Your task to perform on an android device: Open calendar and show me the third week of next month Image 0: 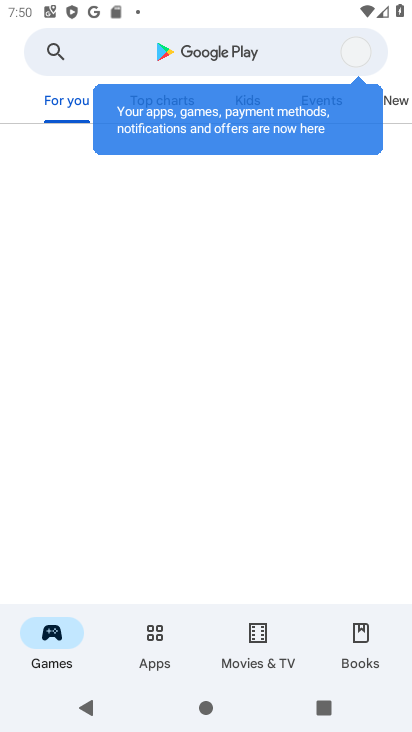
Step 0: press home button
Your task to perform on an android device: Open calendar and show me the third week of next month Image 1: 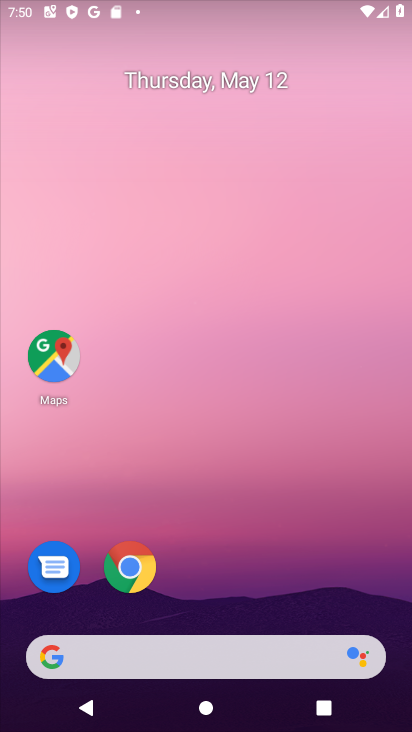
Step 1: drag from (221, 625) to (269, 166)
Your task to perform on an android device: Open calendar and show me the third week of next month Image 2: 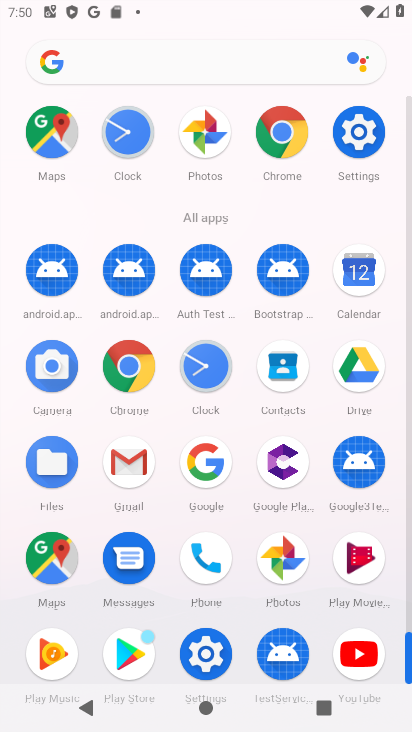
Step 2: click (362, 281)
Your task to perform on an android device: Open calendar and show me the third week of next month Image 3: 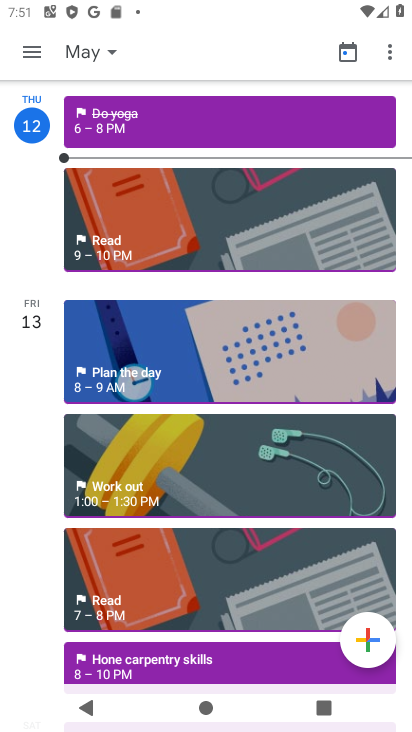
Step 3: click (100, 46)
Your task to perform on an android device: Open calendar and show me the third week of next month Image 4: 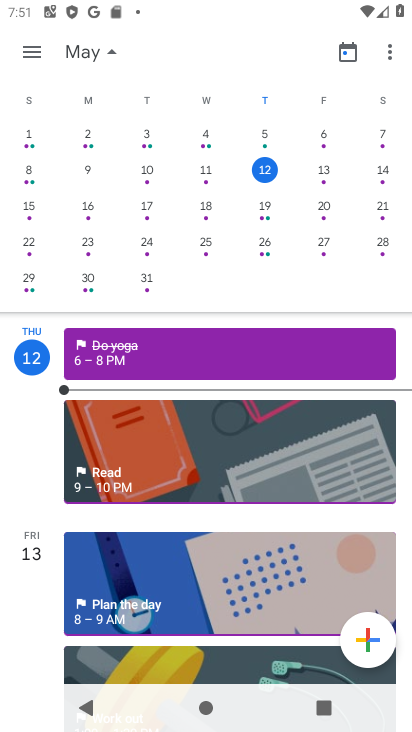
Step 4: drag from (365, 219) to (4, 203)
Your task to perform on an android device: Open calendar and show me the third week of next month Image 5: 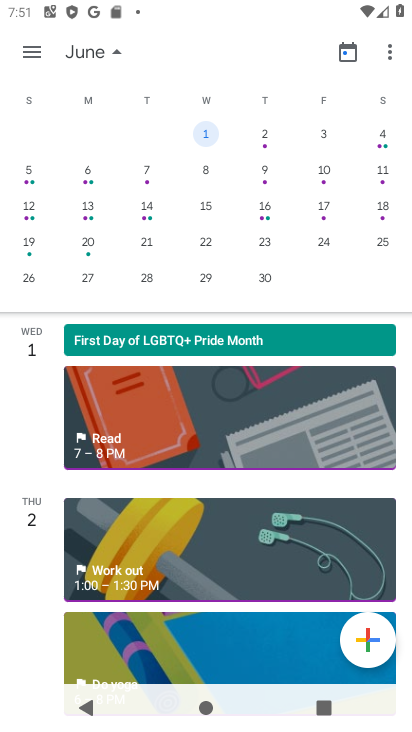
Step 5: click (34, 246)
Your task to perform on an android device: Open calendar and show me the third week of next month Image 6: 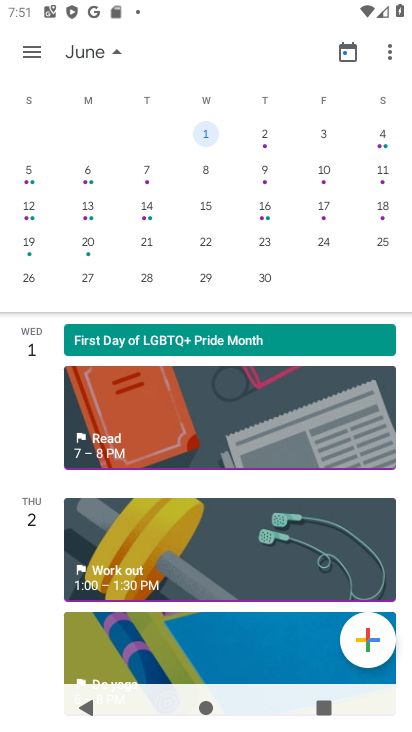
Step 6: click (30, 253)
Your task to perform on an android device: Open calendar and show me the third week of next month Image 7: 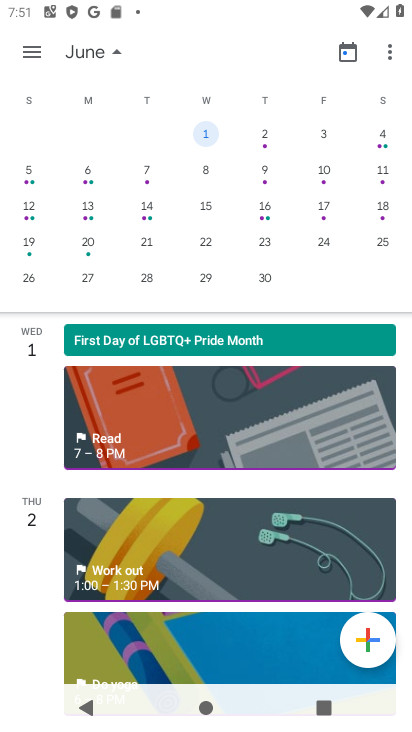
Step 7: click (36, 249)
Your task to perform on an android device: Open calendar and show me the third week of next month Image 8: 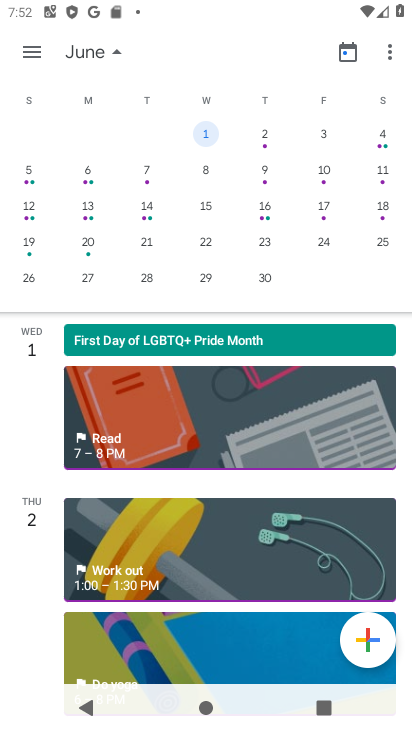
Step 8: click (29, 246)
Your task to perform on an android device: Open calendar and show me the third week of next month Image 9: 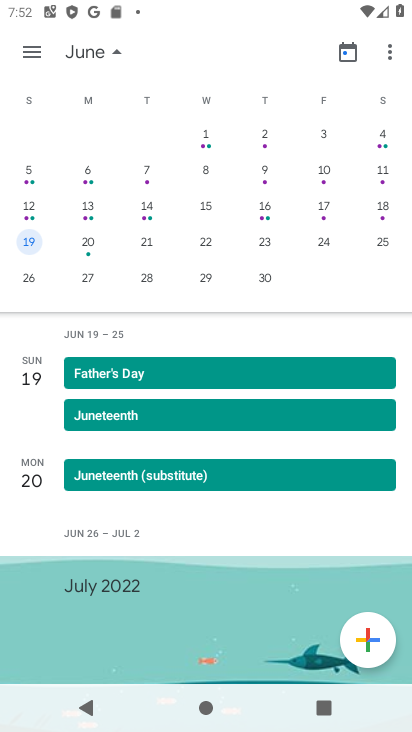
Step 9: task complete